Your task to perform on an android device: Search for good Korean restaurants Image 0: 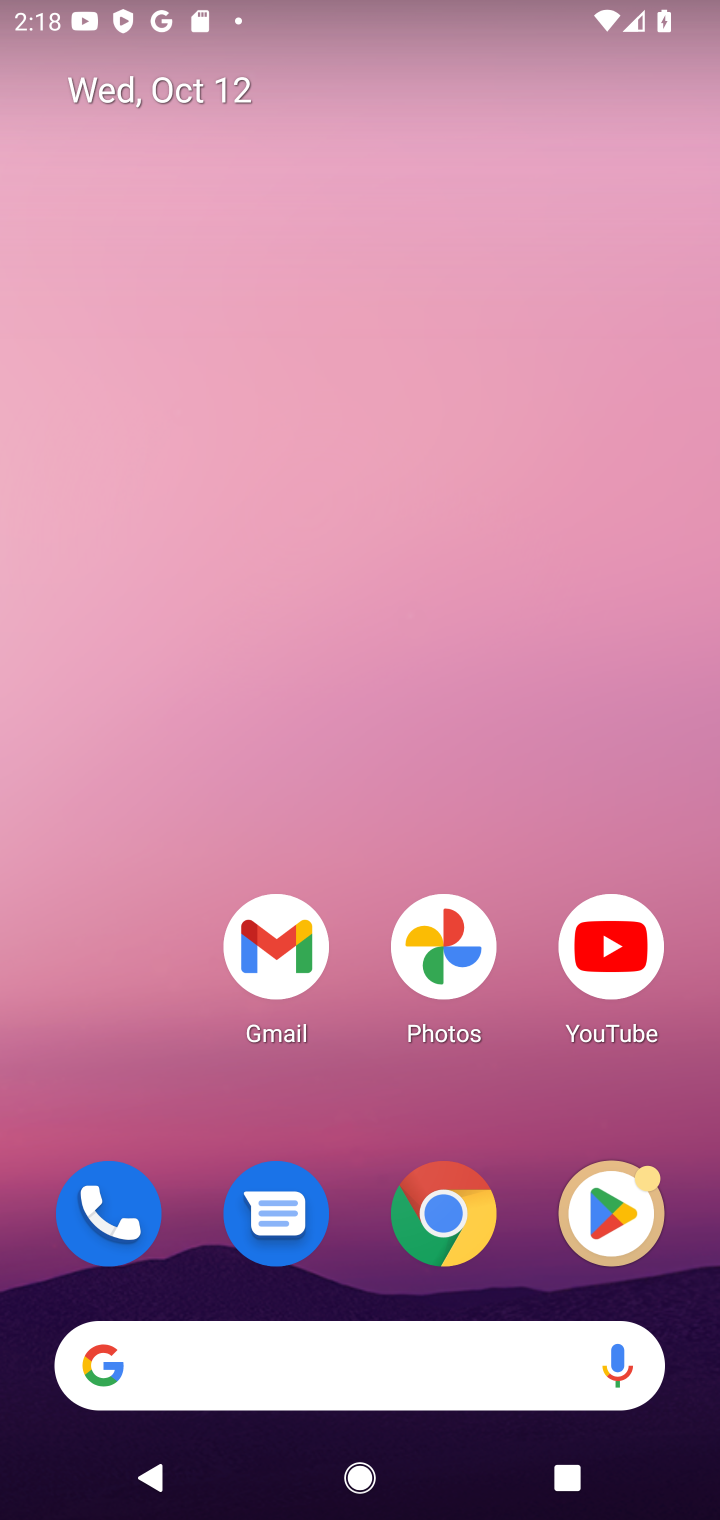
Step 0: click (320, 1380)
Your task to perform on an android device: Search for good Korean restaurants Image 1: 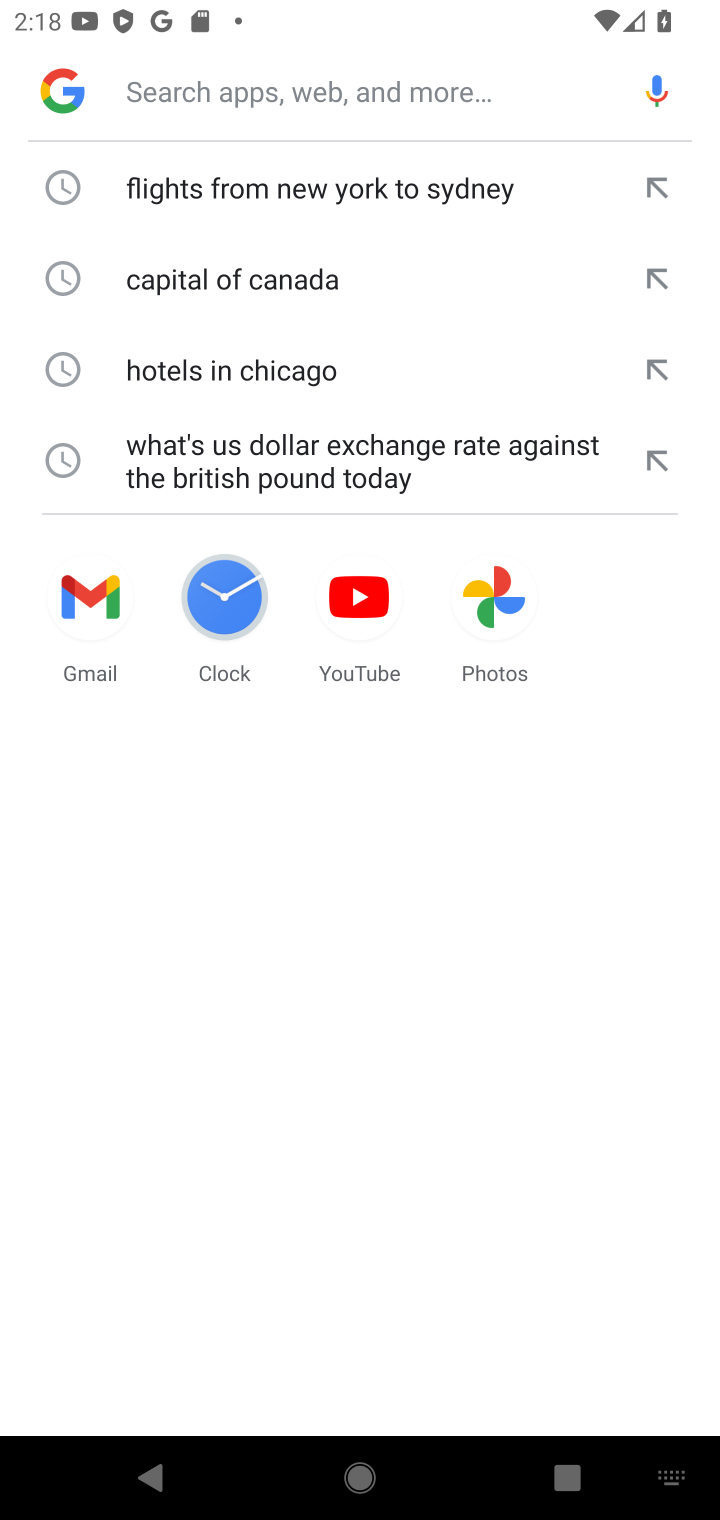
Step 1: click (226, 74)
Your task to perform on an android device: Search for good Korean restaurants Image 2: 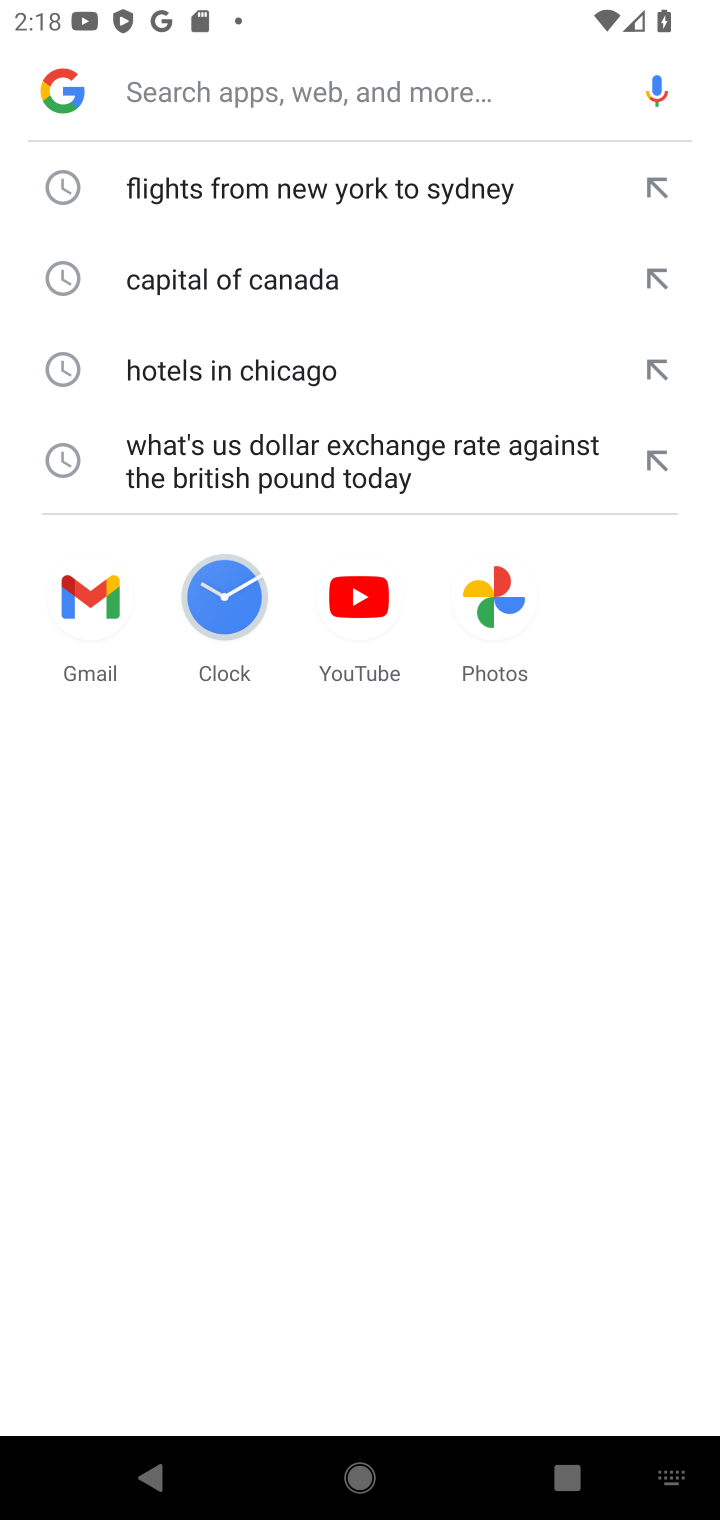
Step 2: type "good Korean restaurants"
Your task to perform on an android device: Search for good Korean restaurants Image 3: 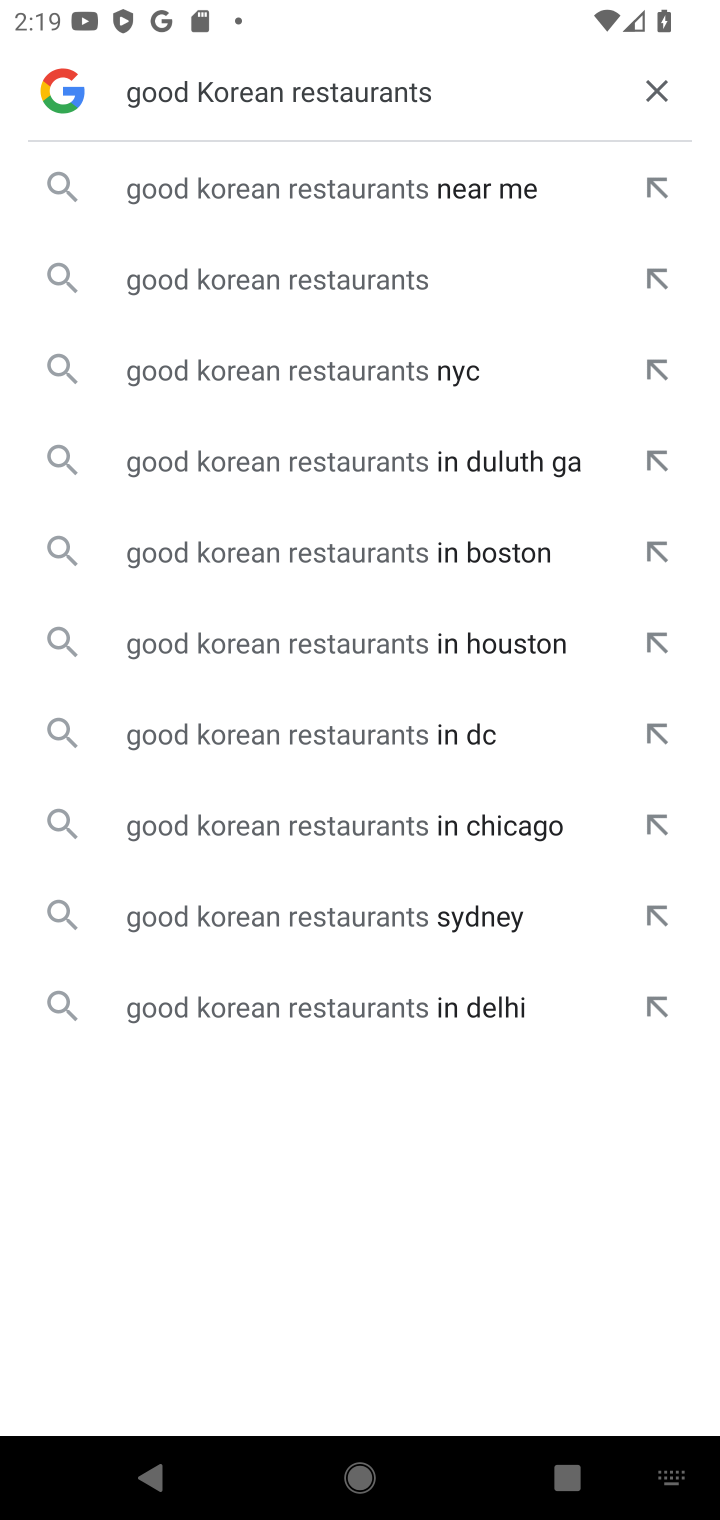
Step 3: click (154, 183)
Your task to perform on an android device: Search for good Korean restaurants Image 4: 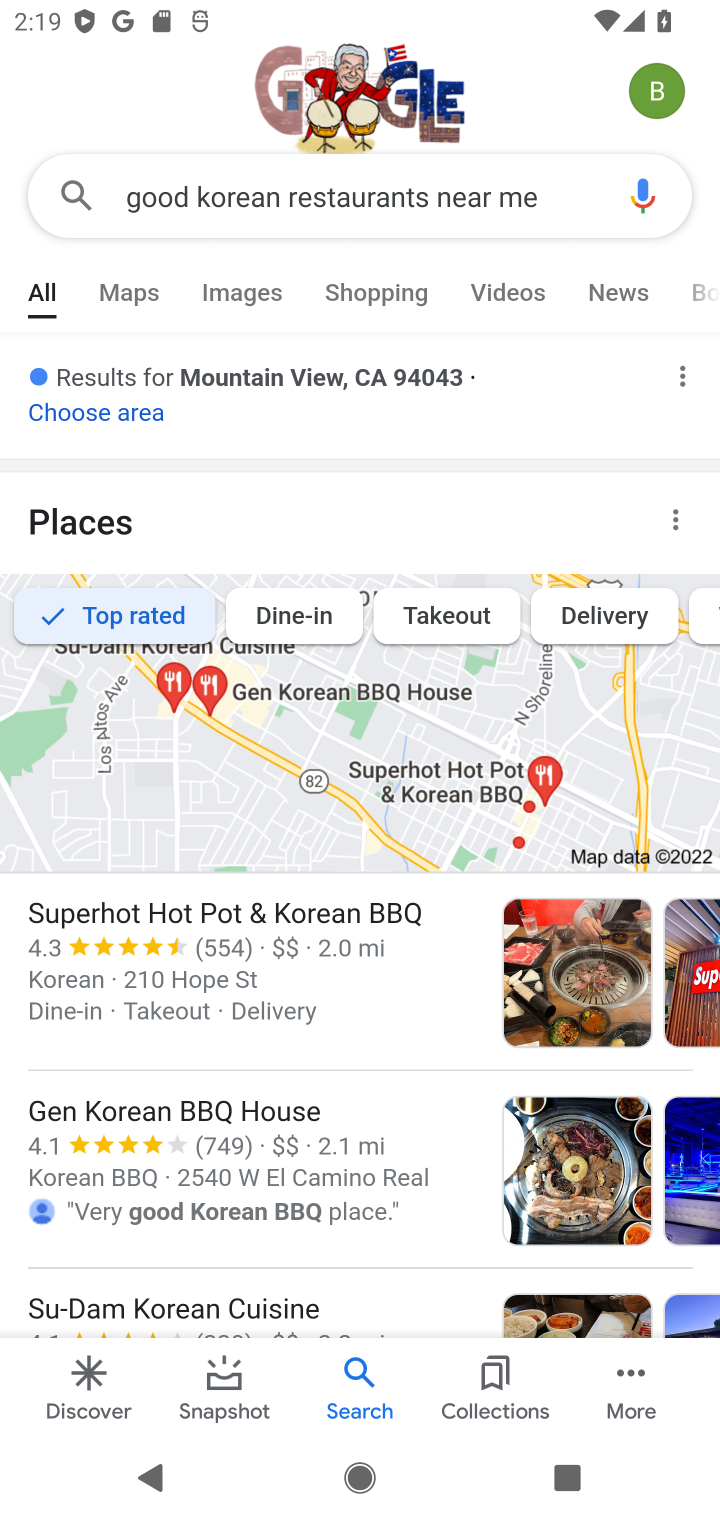
Step 4: task complete